Your task to perform on an android device: check android version Image 0: 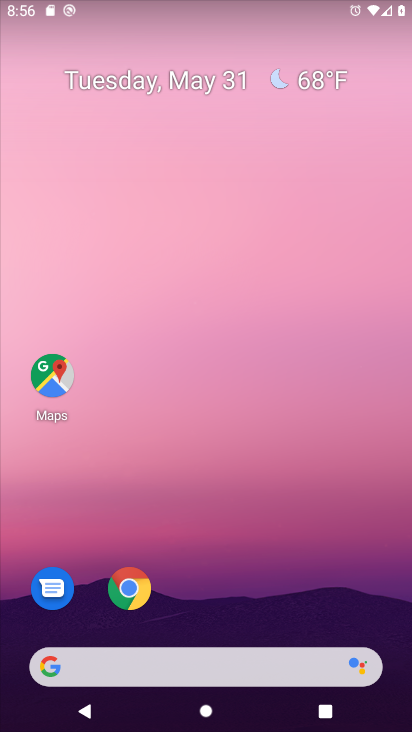
Step 0: press home button
Your task to perform on an android device: check android version Image 1: 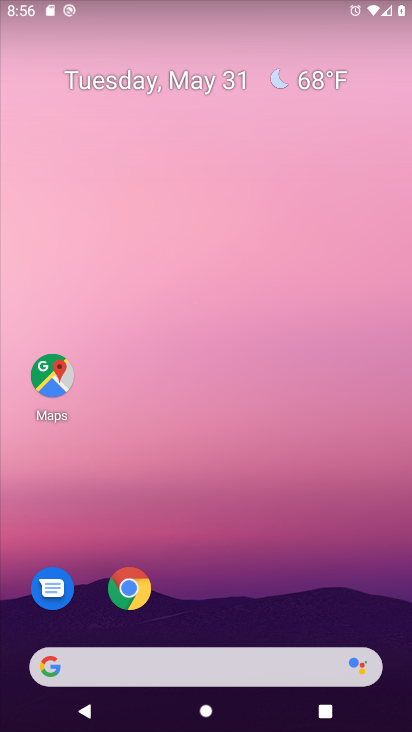
Step 1: drag from (199, 665) to (397, 49)
Your task to perform on an android device: check android version Image 2: 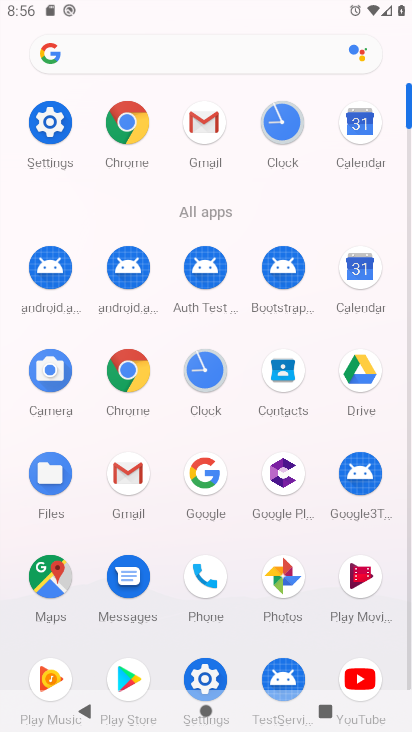
Step 2: click (46, 132)
Your task to perform on an android device: check android version Image 3: 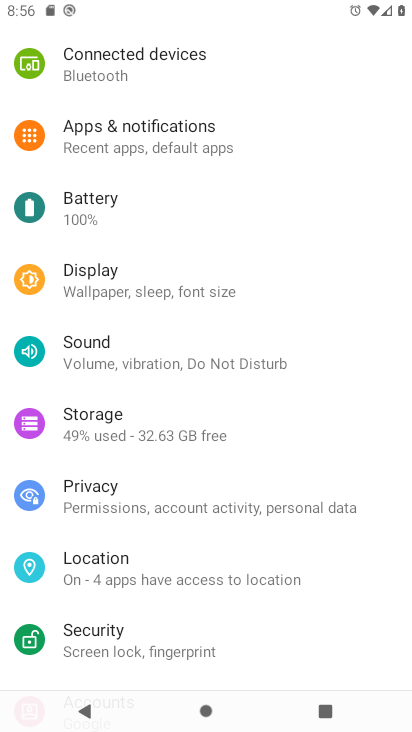
Step 3: drag from (236, 640) to (403, 32)
Your task to perform on an android device: check android version Image 4: 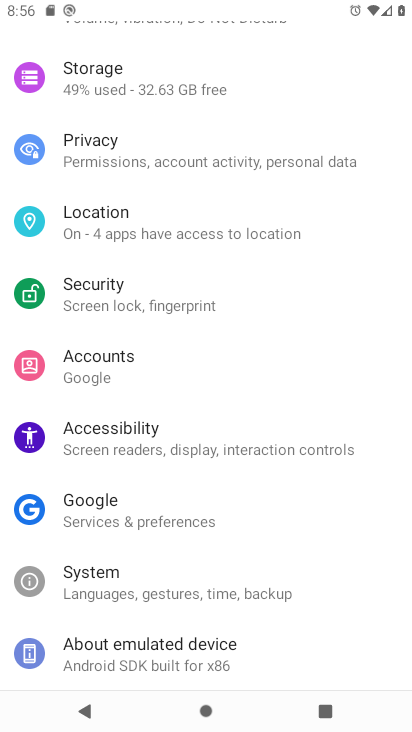
Step 4: click (167, 645)
Your task to perform on an android device: check android version Image 5: 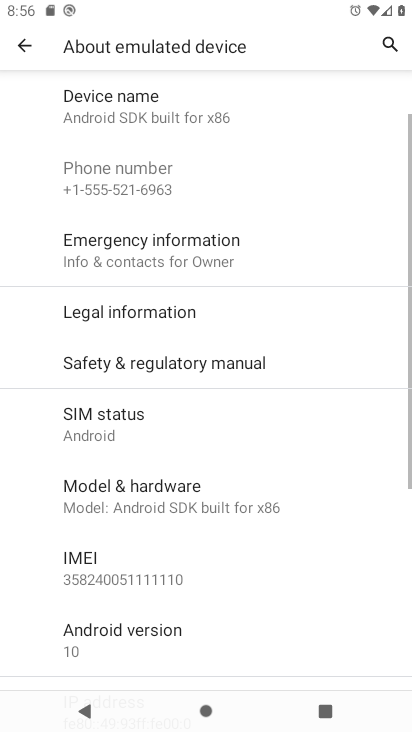
Step 5: drag from (237, 605) to (348, 323)
Your task to perform on an android device: check android version Image 6: 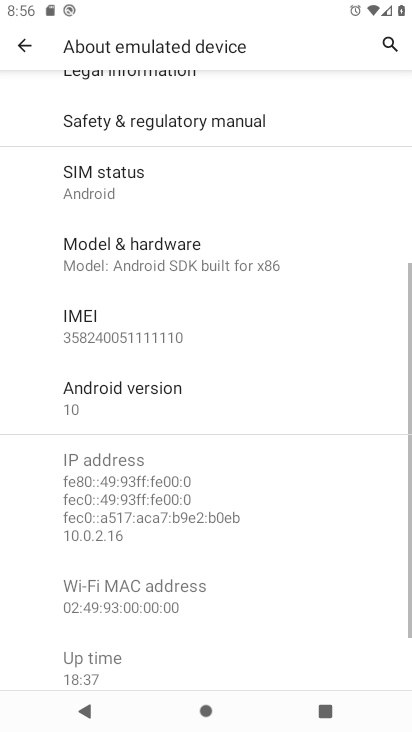
Step 6: click (168, 398)
Your task to perform on an android device: check android version Image 7: 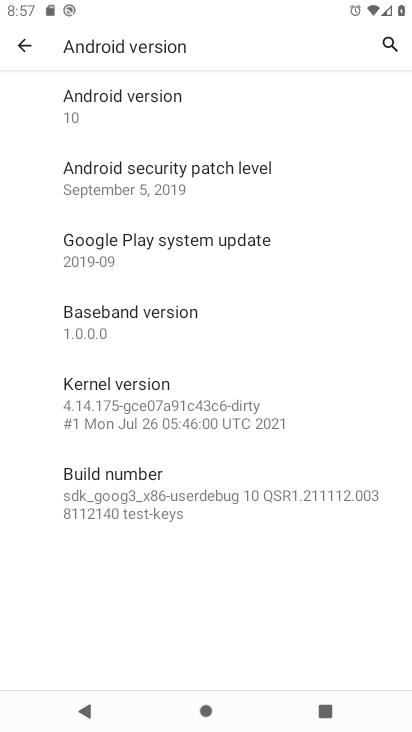
Step 7: task complete